Your task to perform on an android device: Go to privacy settings Image 0: 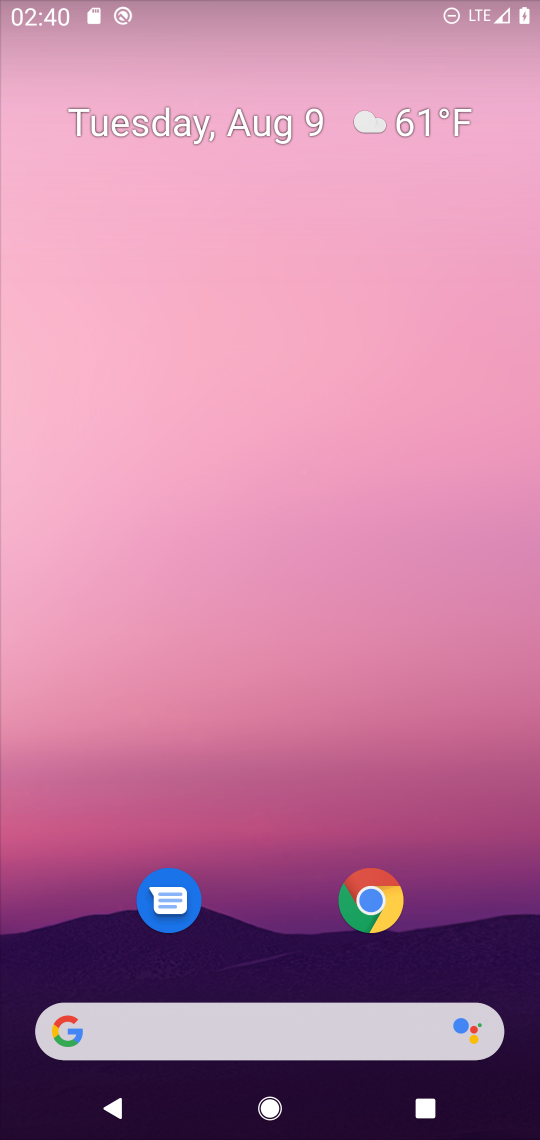
Step 0: press home button
Your task to perform on an android device: Go to privacy settings Image 1: 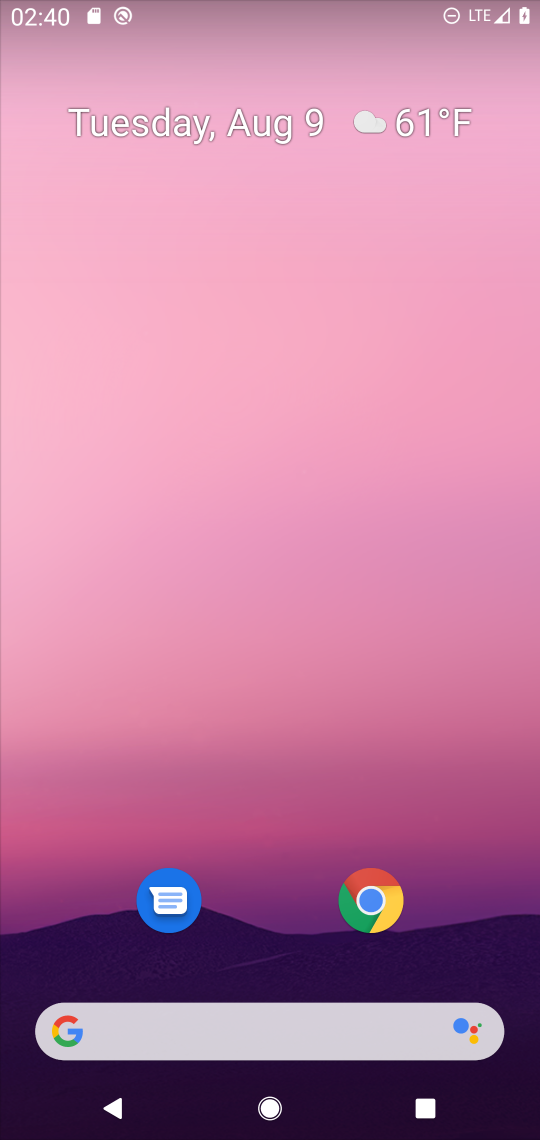
Step 1: drag from (460, 936) to (488, 137)
Your task to perform on an android device: Go to privacy settings Image 2: 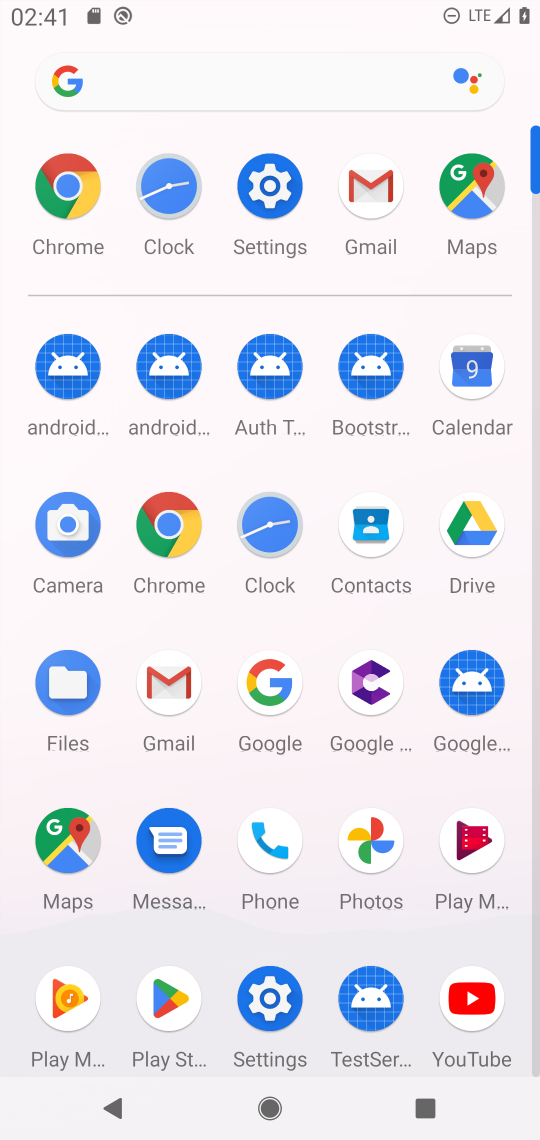
Step 2: click (271, 204)
Your task to perform on an android device: Go to privacy settings Image 3: 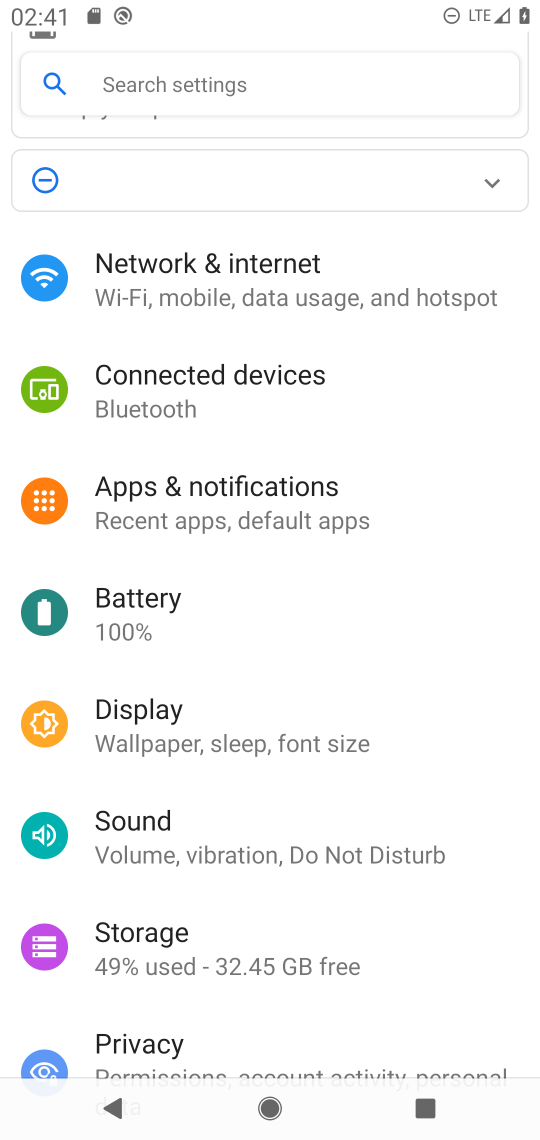
Step 3: drag from (471, 860) to (469, 607)
Your task to perform on an android device: Go to privacy settings Image 4: 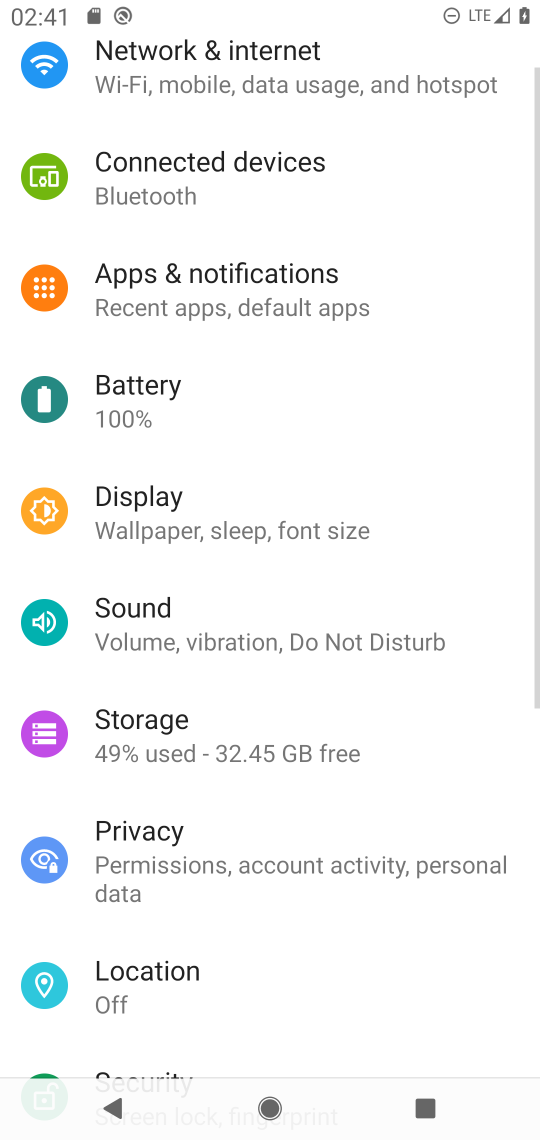
Step 4: drag from (443, 812) to (443, 592)
Your task to perform on an android device: Go to privacy settings Image 5: 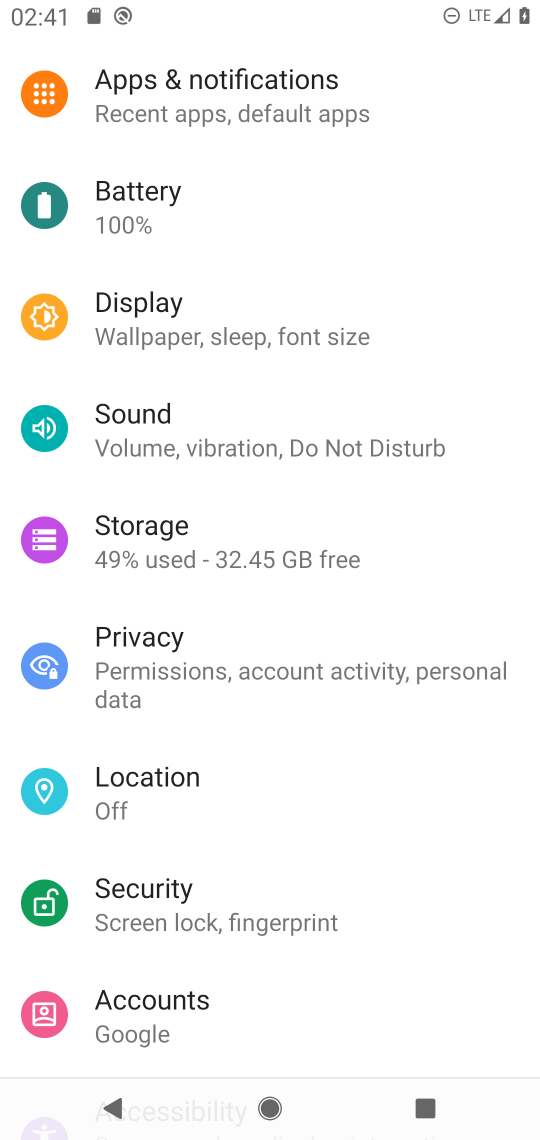
Step 5: drag from (422, 830) to (443, 628)
Your task to perform on an android device: Go to privacy settings Image 6: 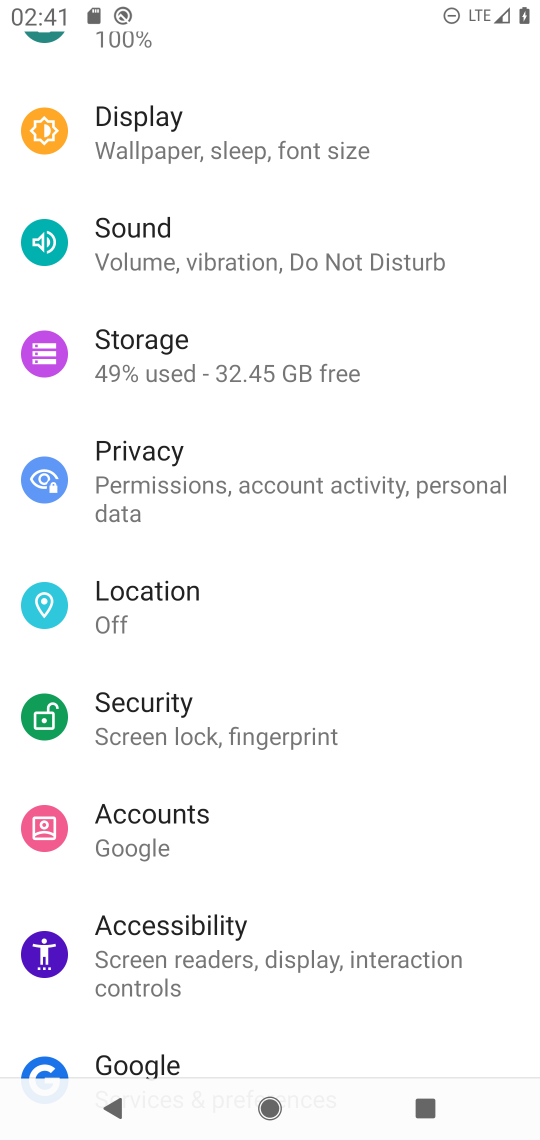
Step 6: click (409, 496)
Your task to perform on an android device: Go to privacy settings Image 7: 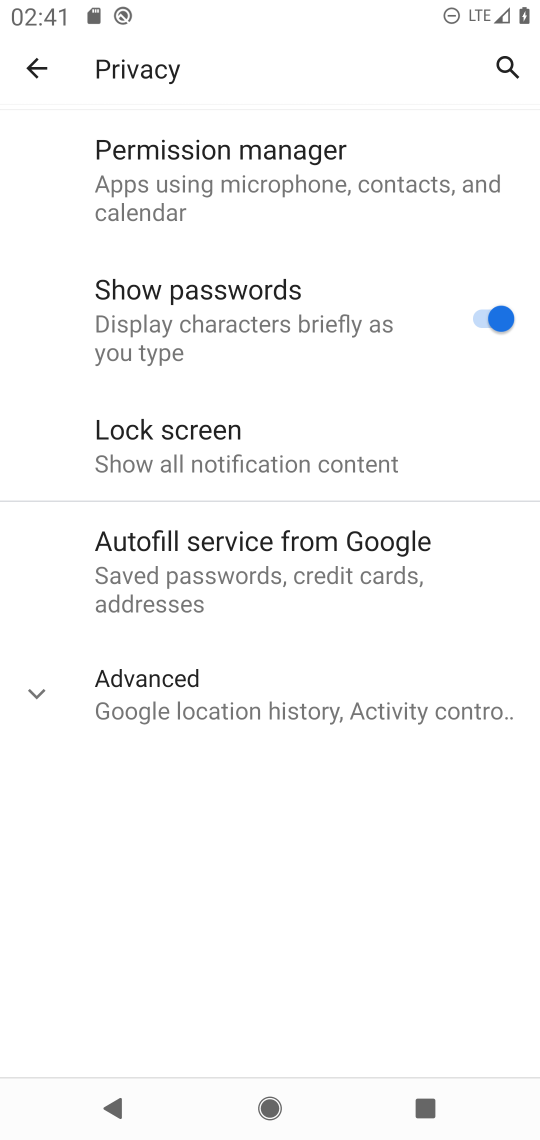
Step 7: task complete